Your task to perform on an android device: remove spam from my inbox in the gmail app Image 0: 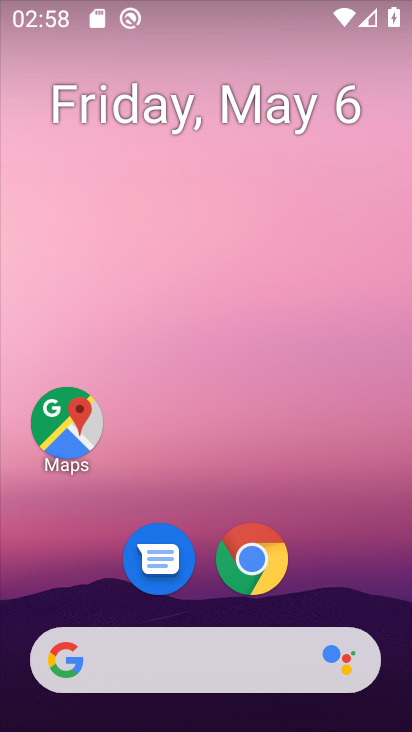
Step 0: drag from (314, 608) to (367, 66)
Your task to perform on an android device: remove spam from my inbox in the gmail app Image 1: 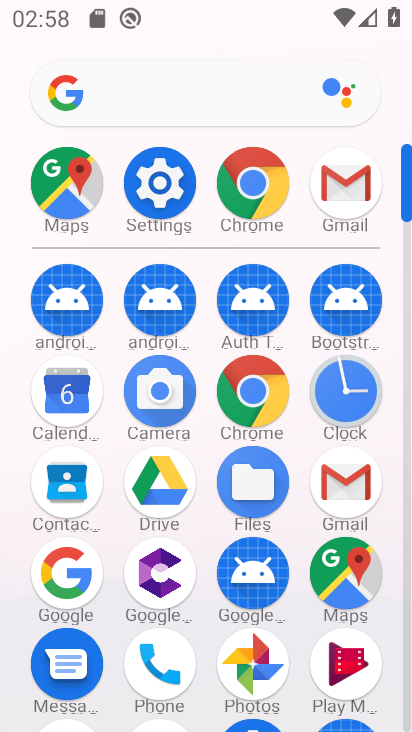
Step 1: click (332, 481)
Your task to perform on an android device: remove spam from my inbox in the gmail app Image 2: 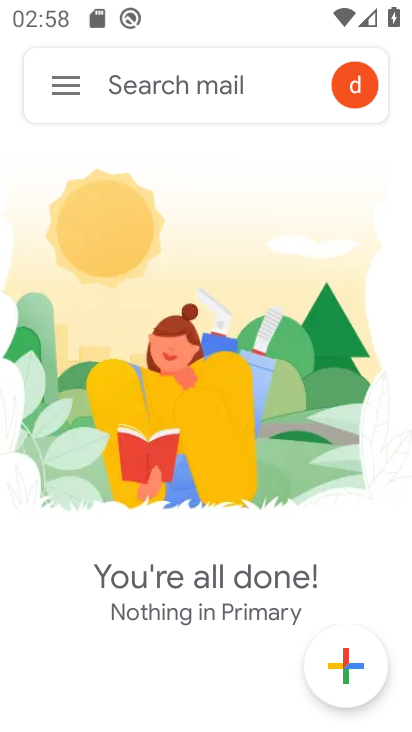
Step 2: click (65, 88)
Your task to perform on an android device: remove spam from my inbox in the gmail app Image 3: 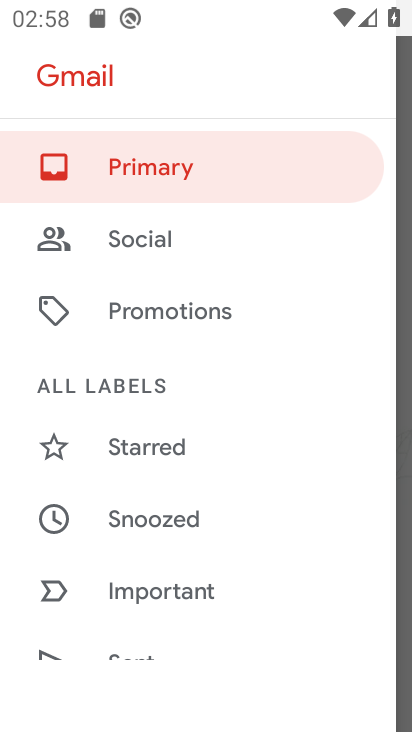
Step 3: drag from (186, 562) to (267, 74)
Your task to perform on an android device: remove spam from my inbox in the gmail app Image 4: 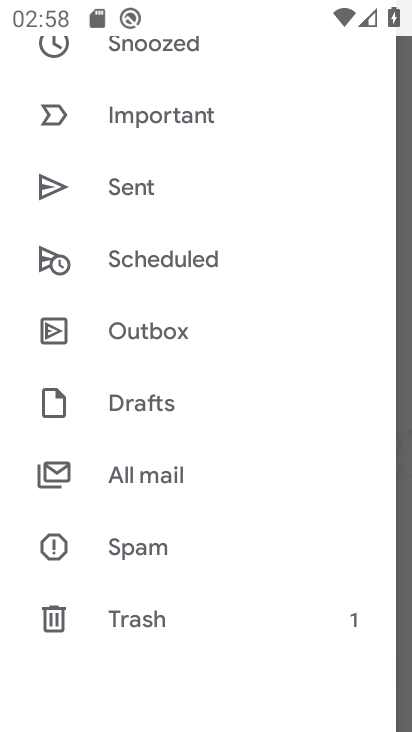
Step 4: click (137, 543)
Your task to perform on an android device: remove spam from my inbox in the gmail app Image 5: 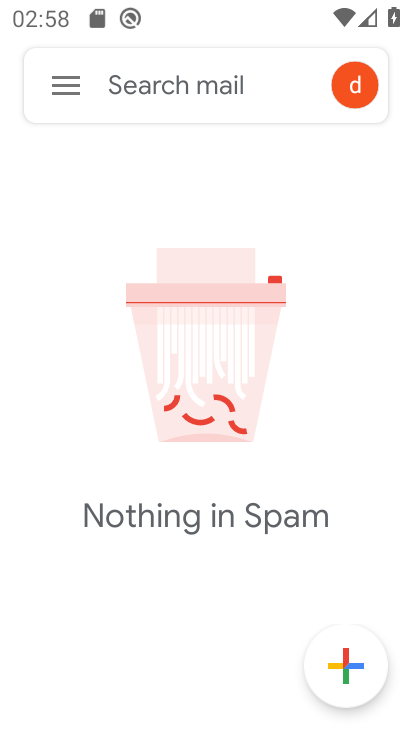
Step 5: task complete